Your task to perform on an android device: Add dell alienware to the cart on walmart Image 0: 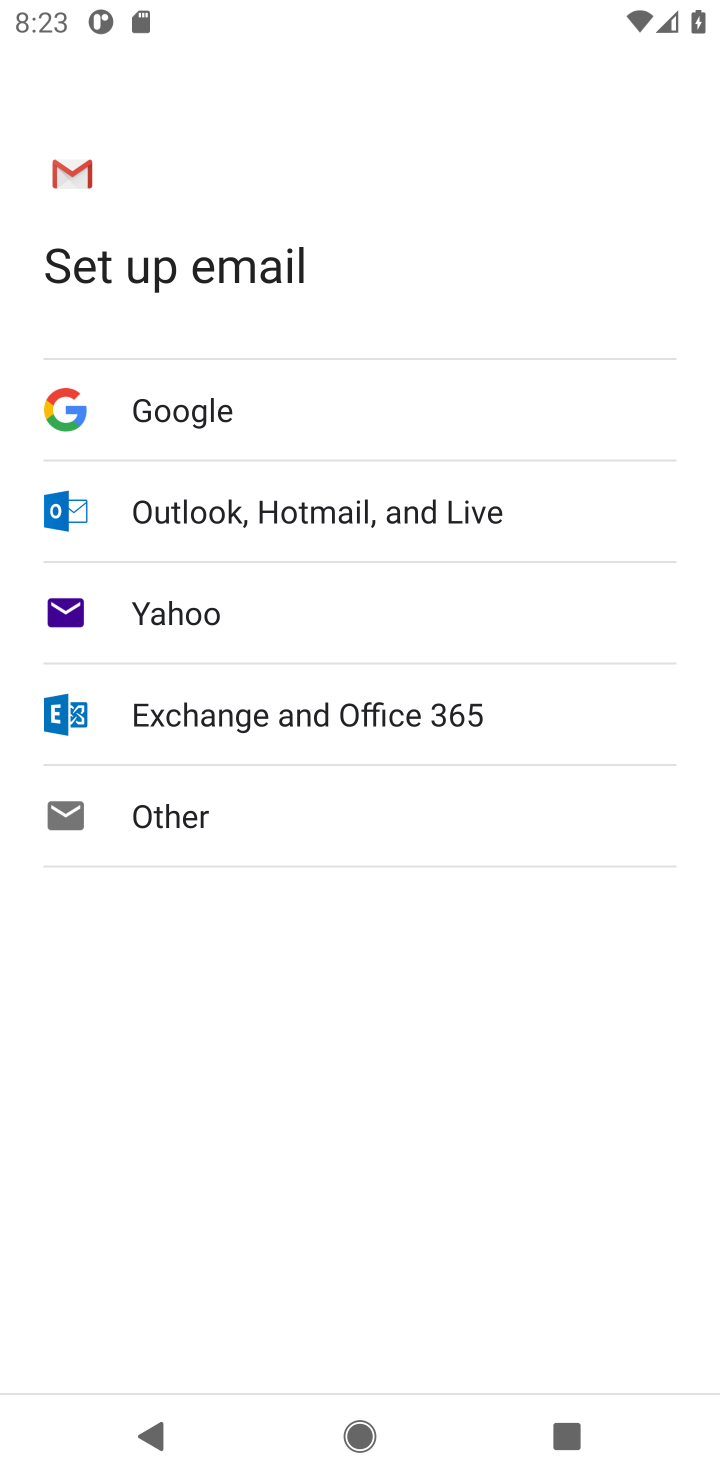
Step 0: press home button
Your task to perform on an android device: Add dell alienware to the cart on walmart Image 1: 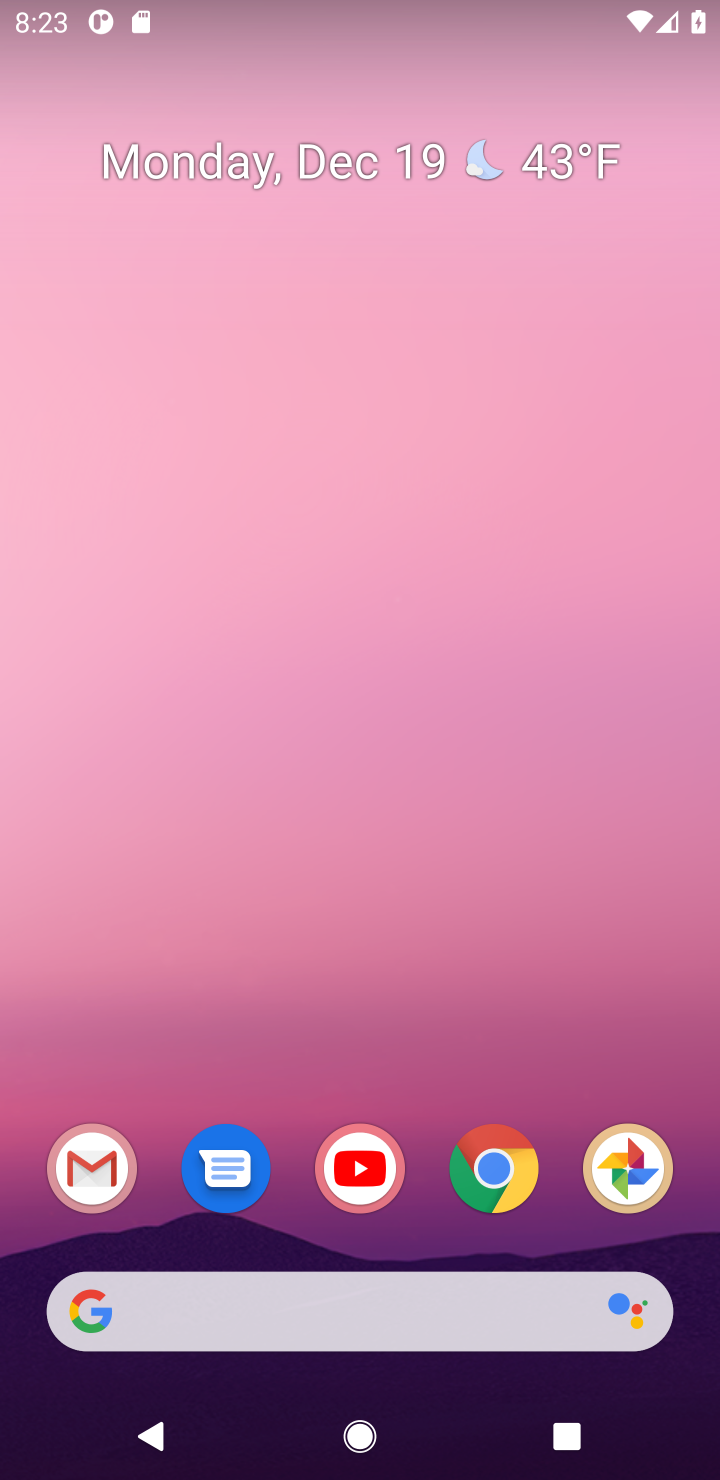
Step 1: click (502, 1174)
Your task to perform on an android device: Add dell alienware to the cart on walmart Image 2: 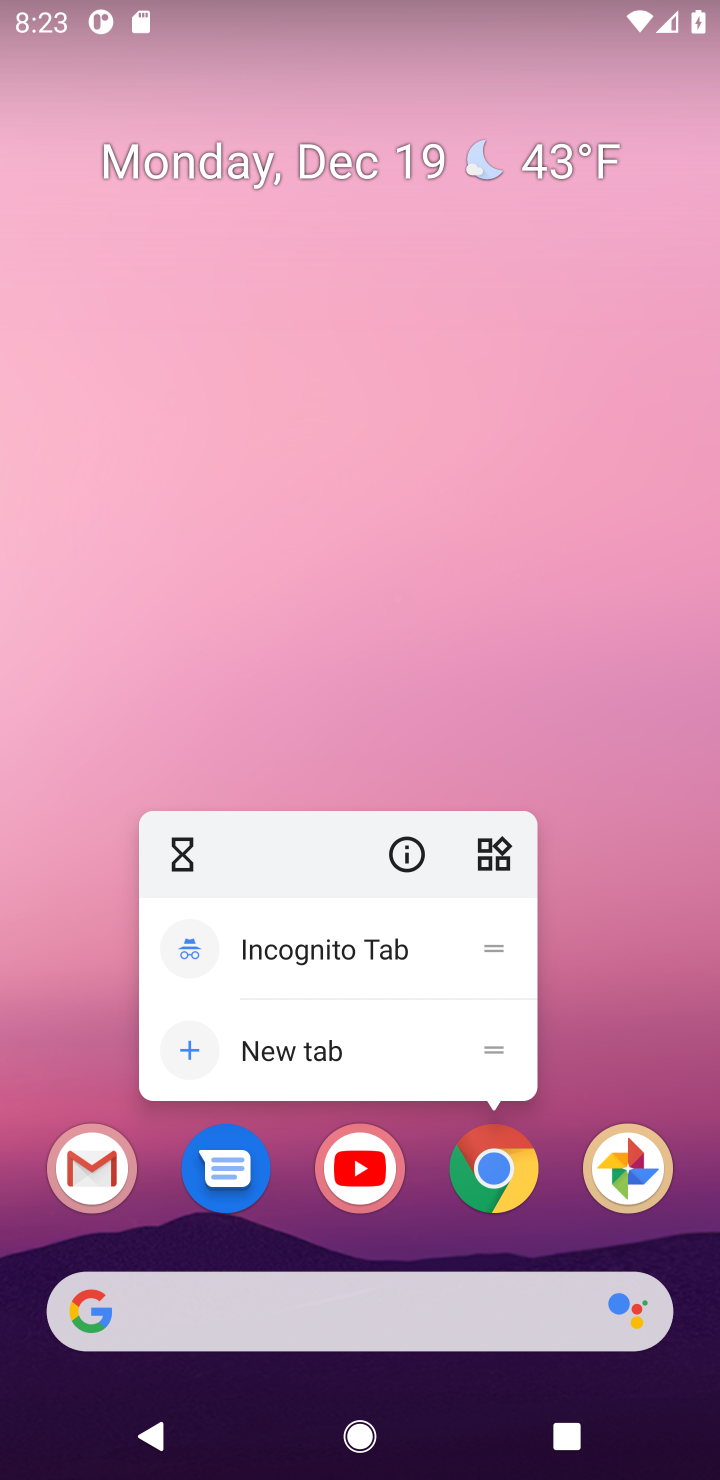
Step 2: click (502, 1174)
Your task to perform on an android device: Add dell alienware to the cart on walmart Image 3: 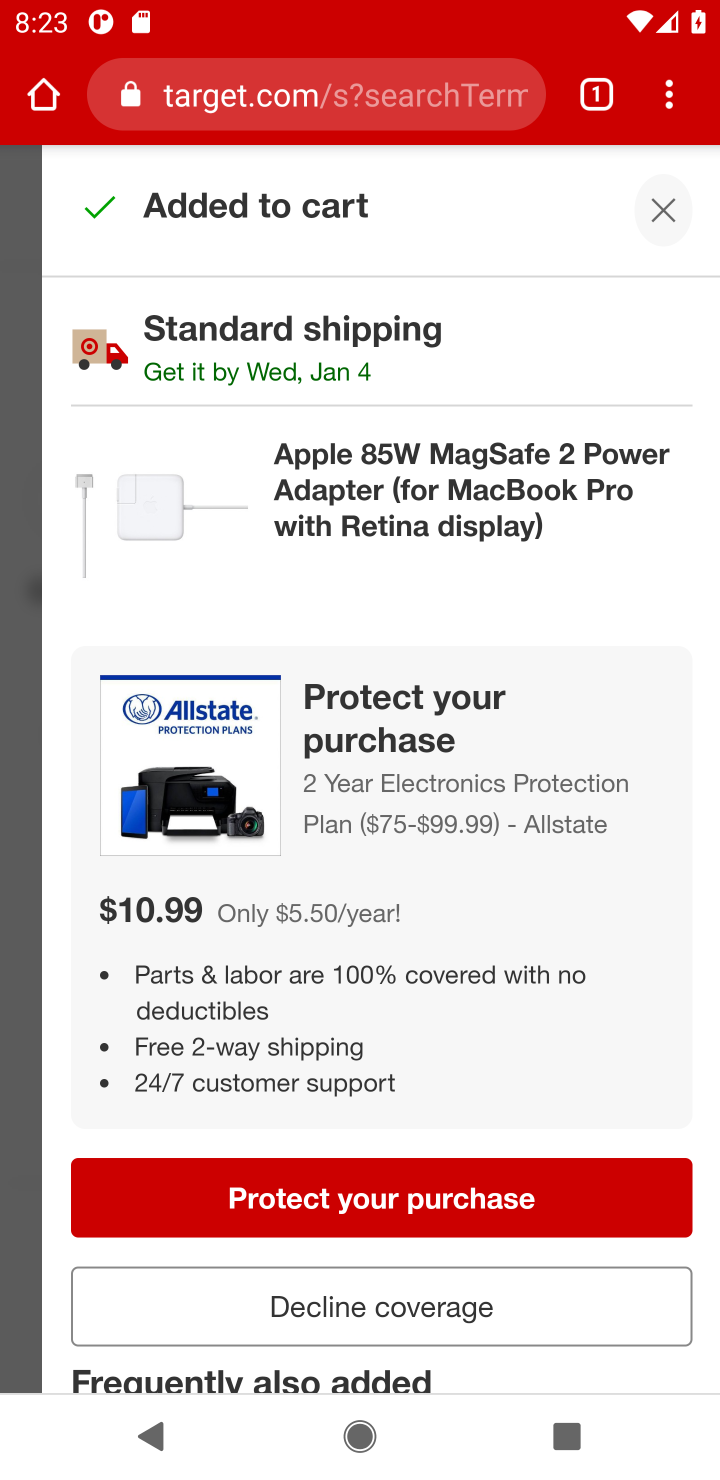
Step 3: click (260, 87)
Your task to perform on an android device: Add dell alienware to the cart on walmart Image 4: 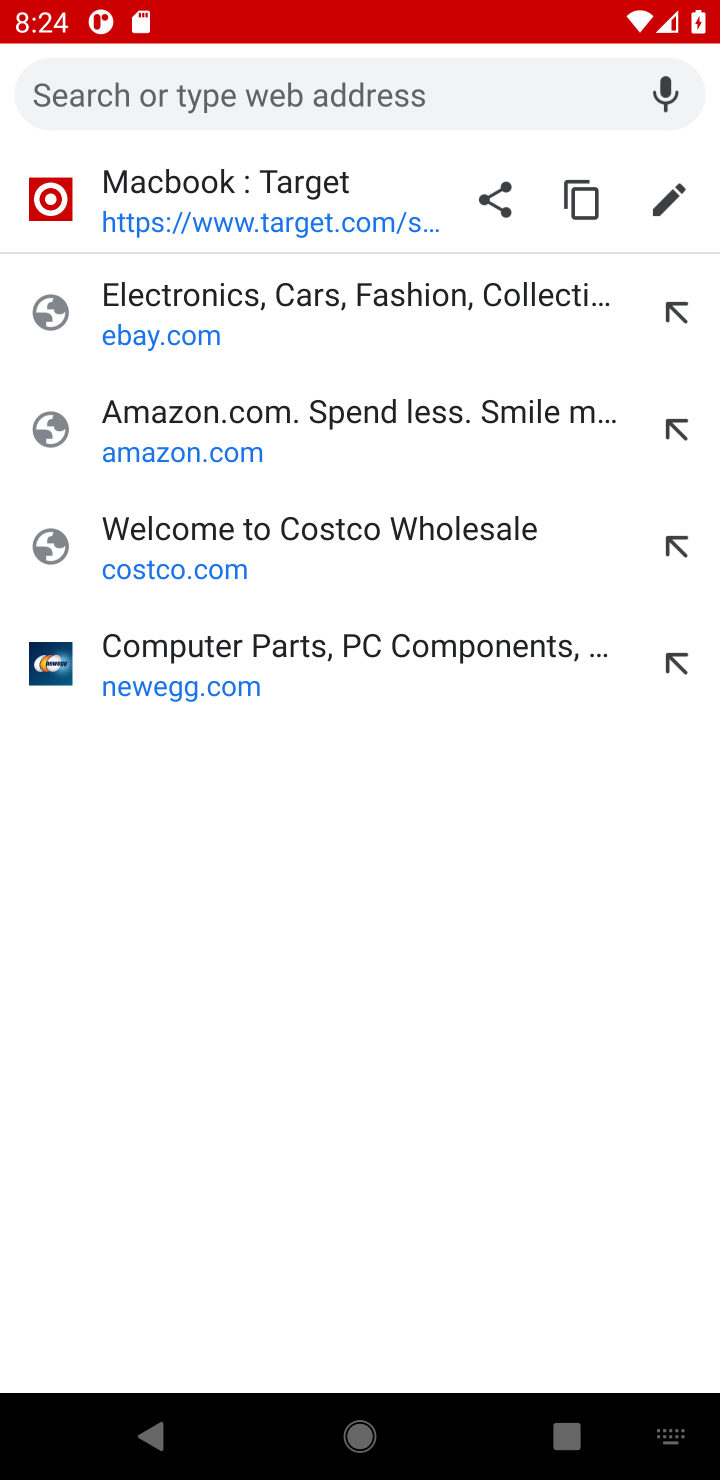
Step 4: type "walmart.com"
Your task to perform on an android device: Add dell alienware to the cart on walmart Image 5: 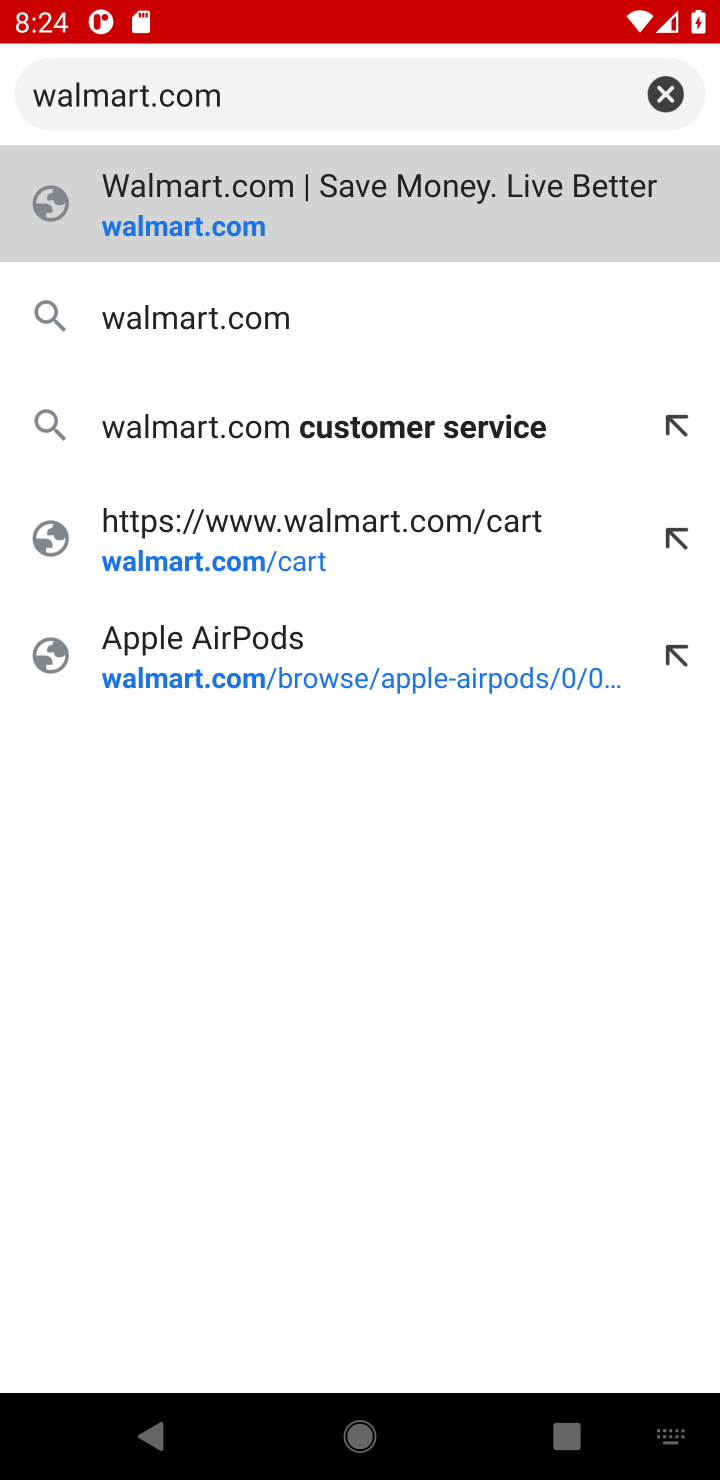
Step 5: click (160, 224)
Your task to perform on an android device: Add dell alienware to the cart on walmart Image 6: 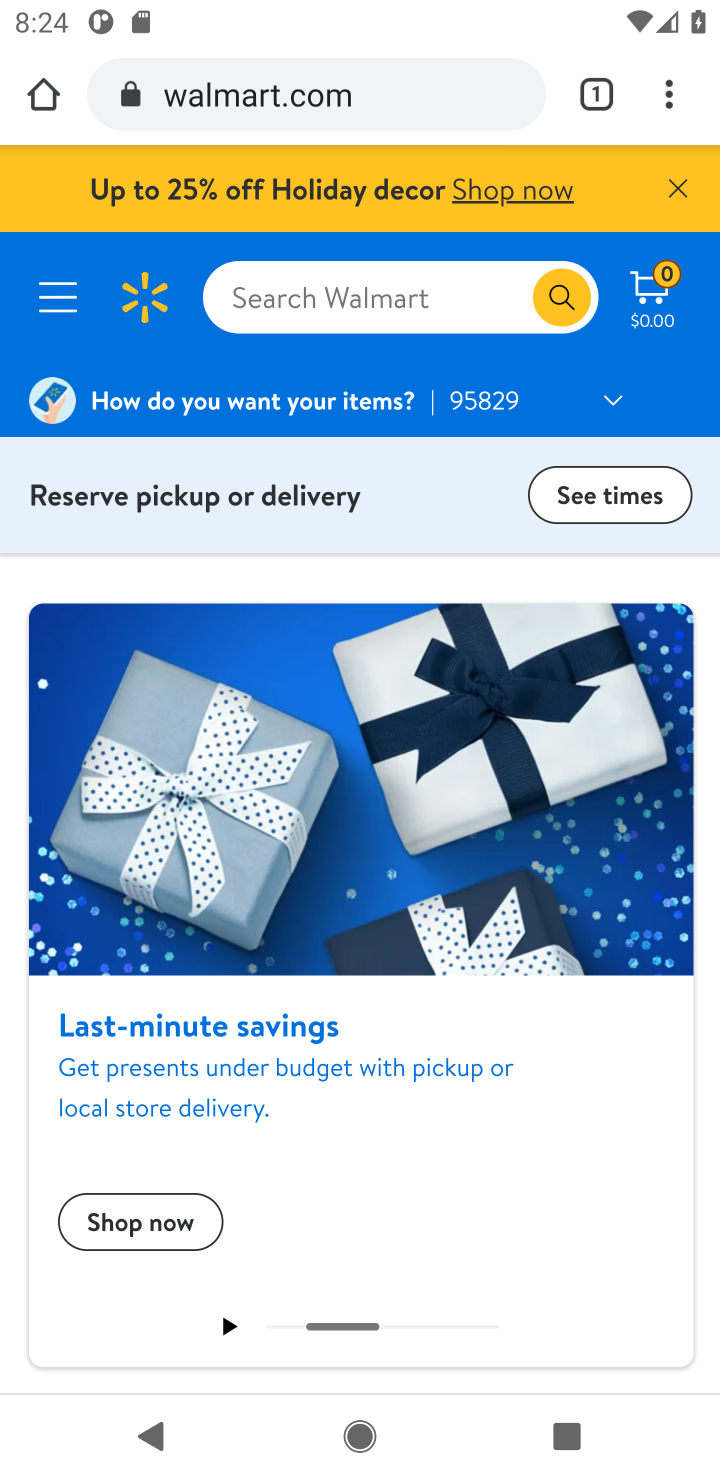
Step 6: click (265, 310)
Your task to perform on an android device: Add dell alienware to the cart on walmart Image 7: 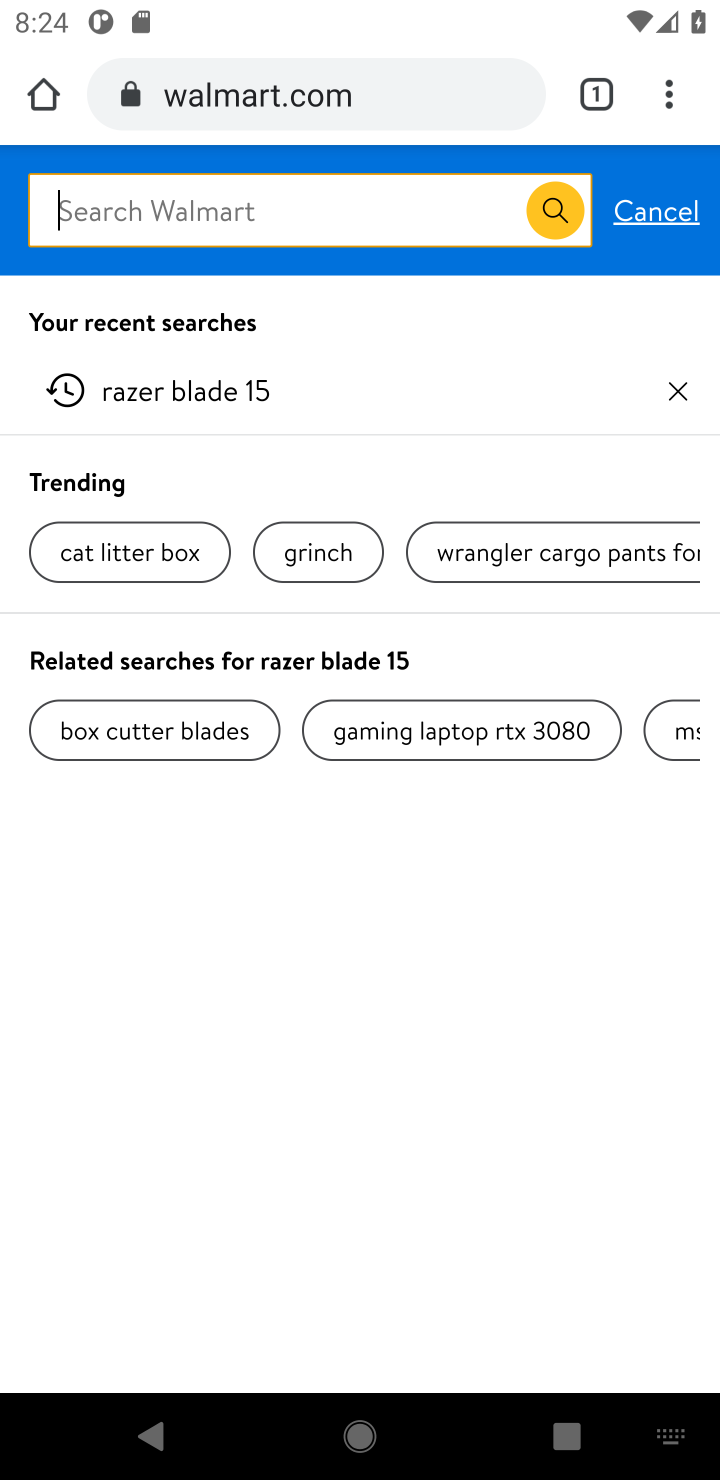
Step 7: type "dell alienware"
Your task to perform on an android device: Add dell alienware to the cart on walmart Image 8: 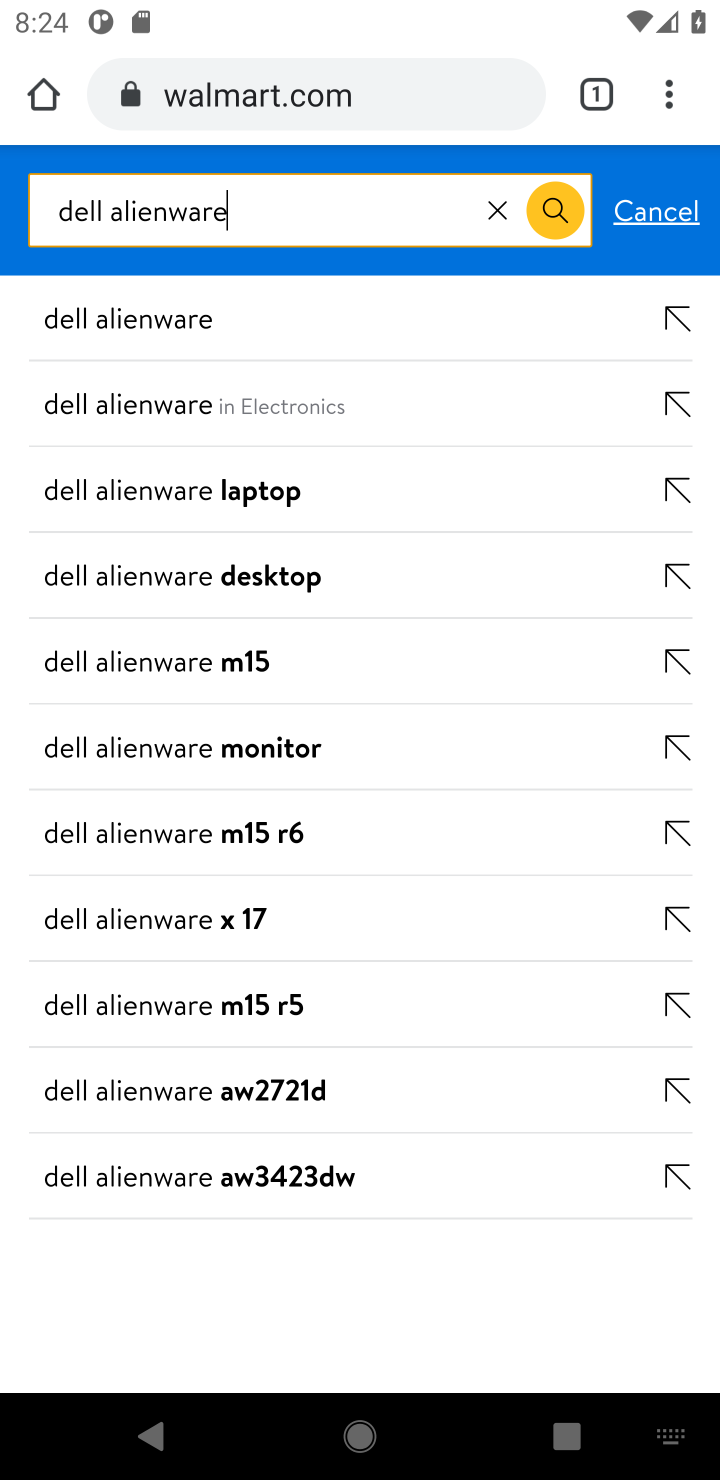
Step 8: click (137, 327)
Your task to perform on an android device: Add dell alienware to the cart on walmart Image 9: 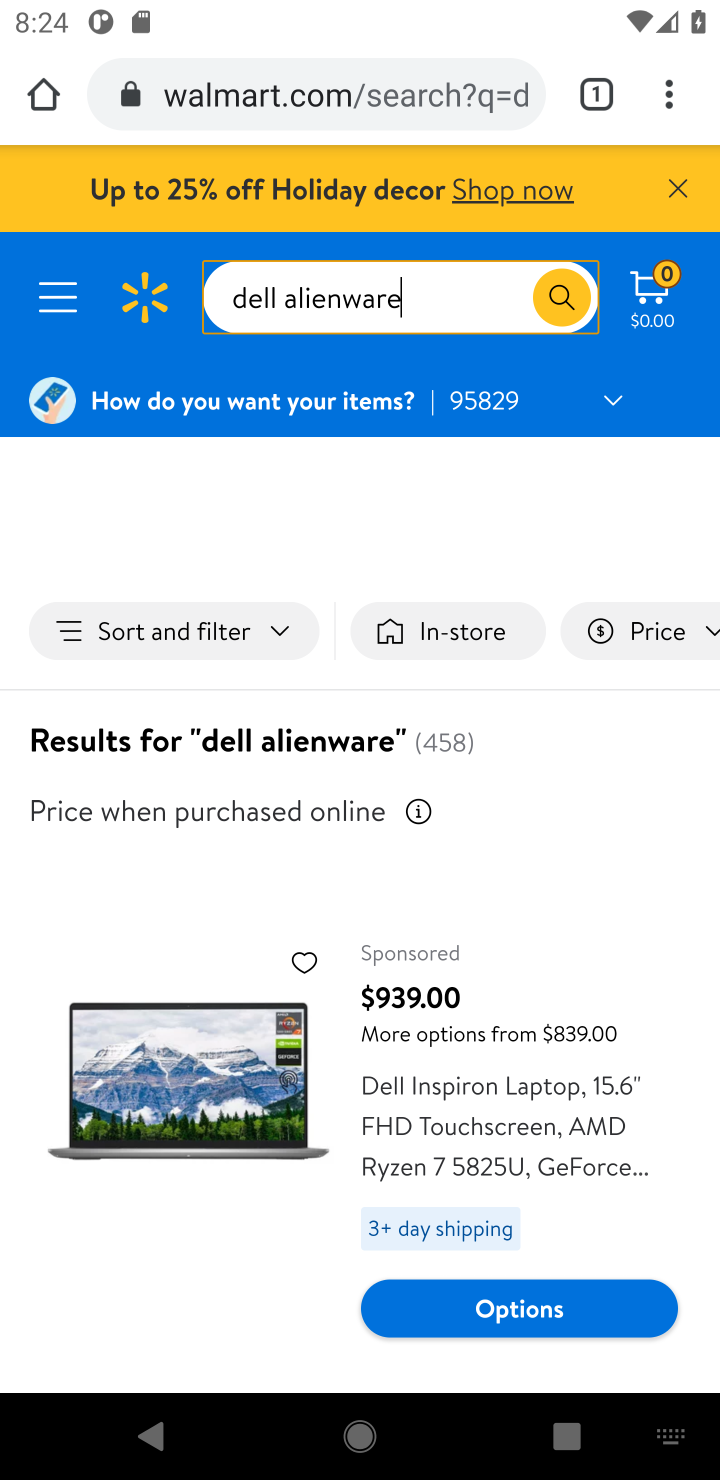
Step 9: drag from (369, 1102) to (371, 634)
Your task to perform on an android device: Add dell alienware to the cart on walmart Image 10: 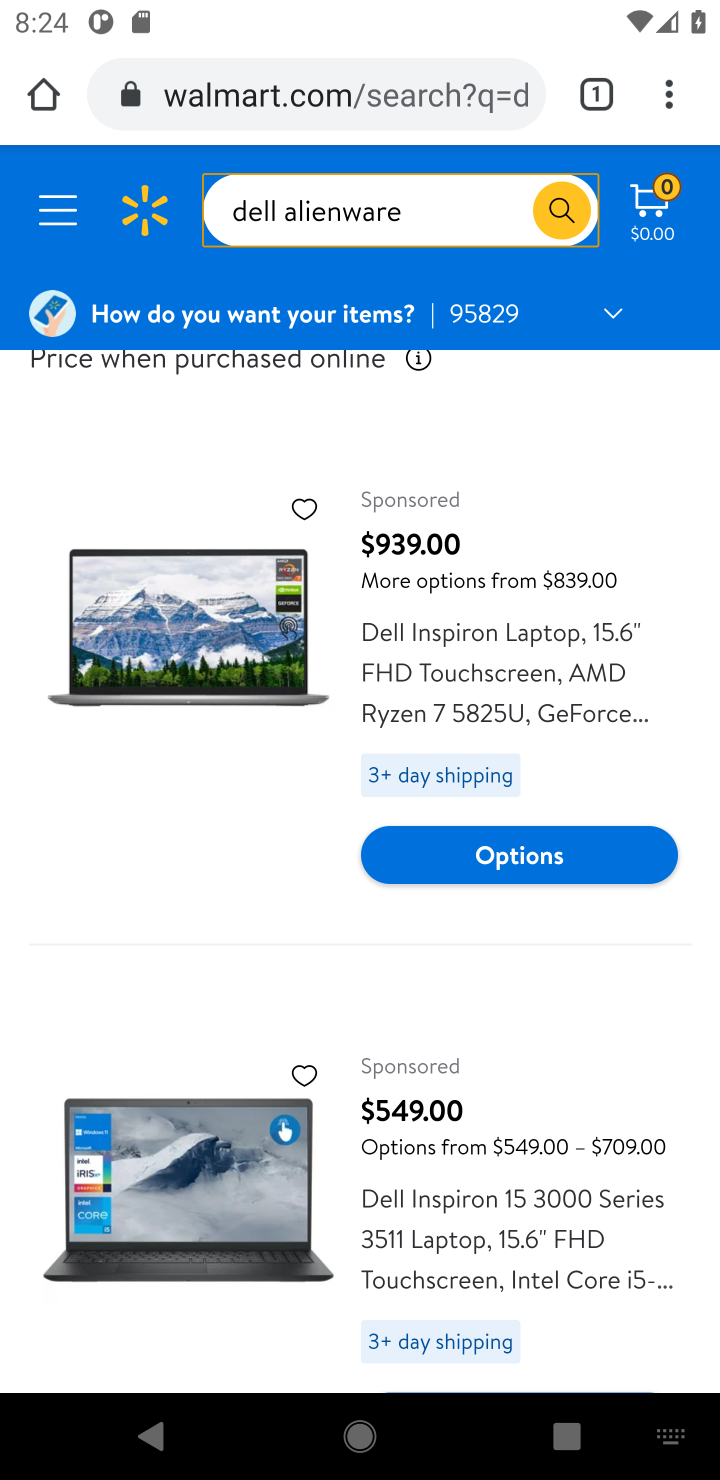
Step 10: drag from (412, 1057) to (391, 574)
Your task to perform on an android device: Add dell alienware to the cart on walmart Image 11: 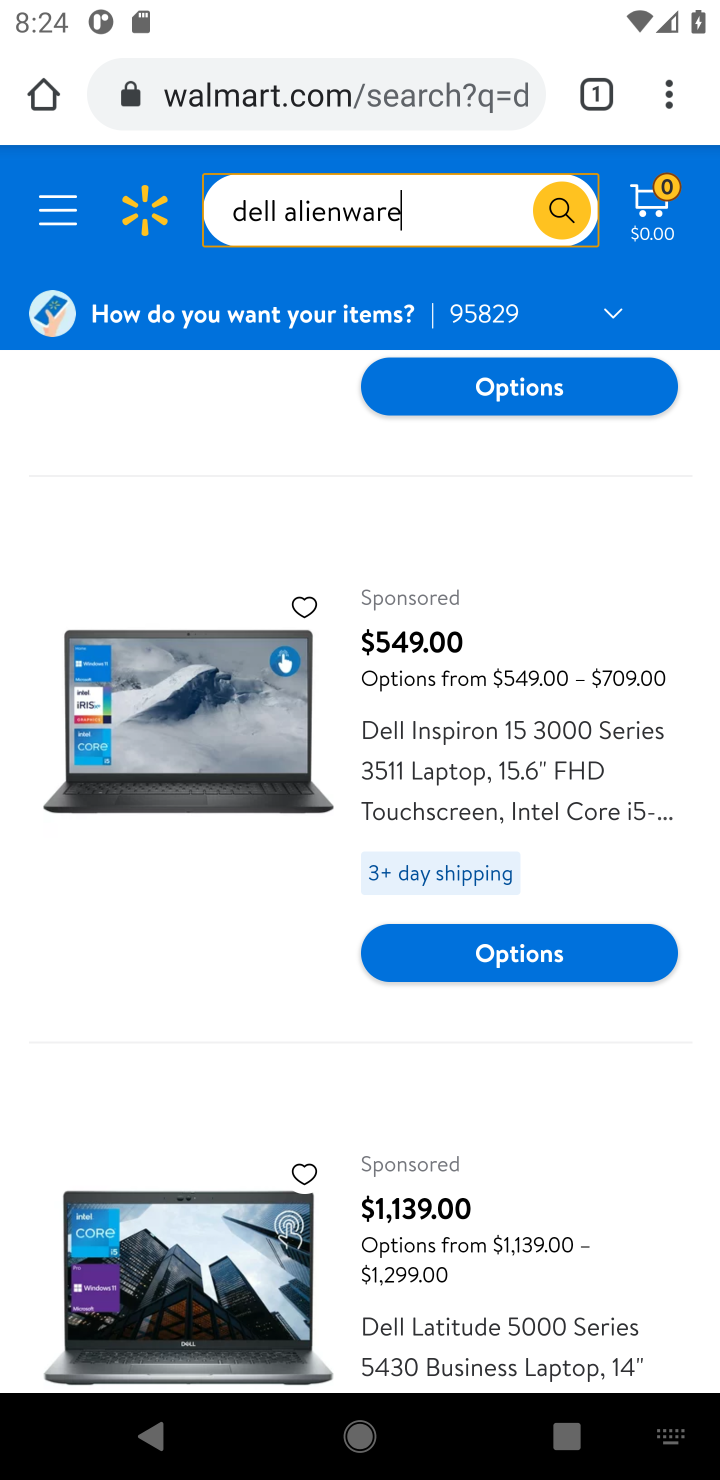
Step 11: drag from (383, 784) to (383, 215)
Your task to perform on an android device: Add dell alienware to the cart on walmart Image 12: 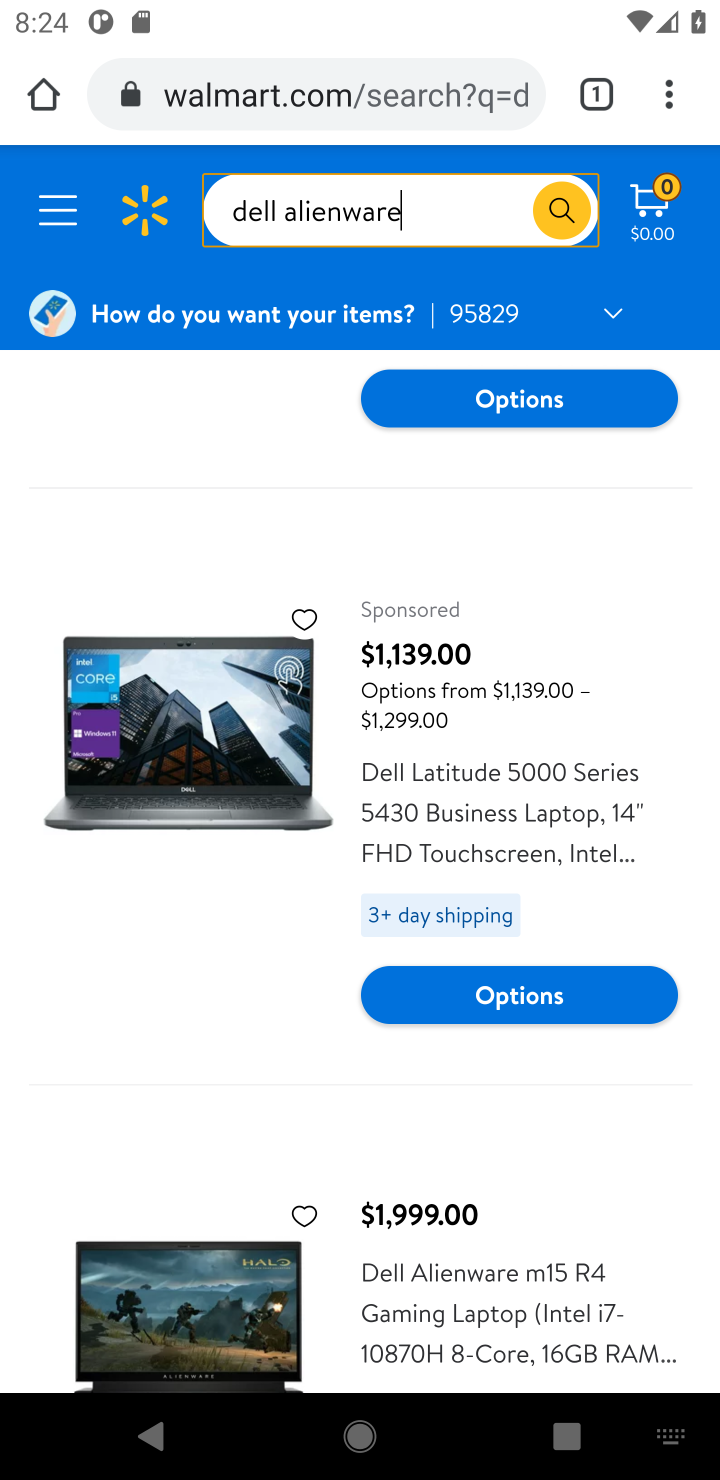
Step 12: drag from (406, 871) to (398, 323)
Your task to perform on an android device: Add dell alienware to the cart on walmart Image 13: 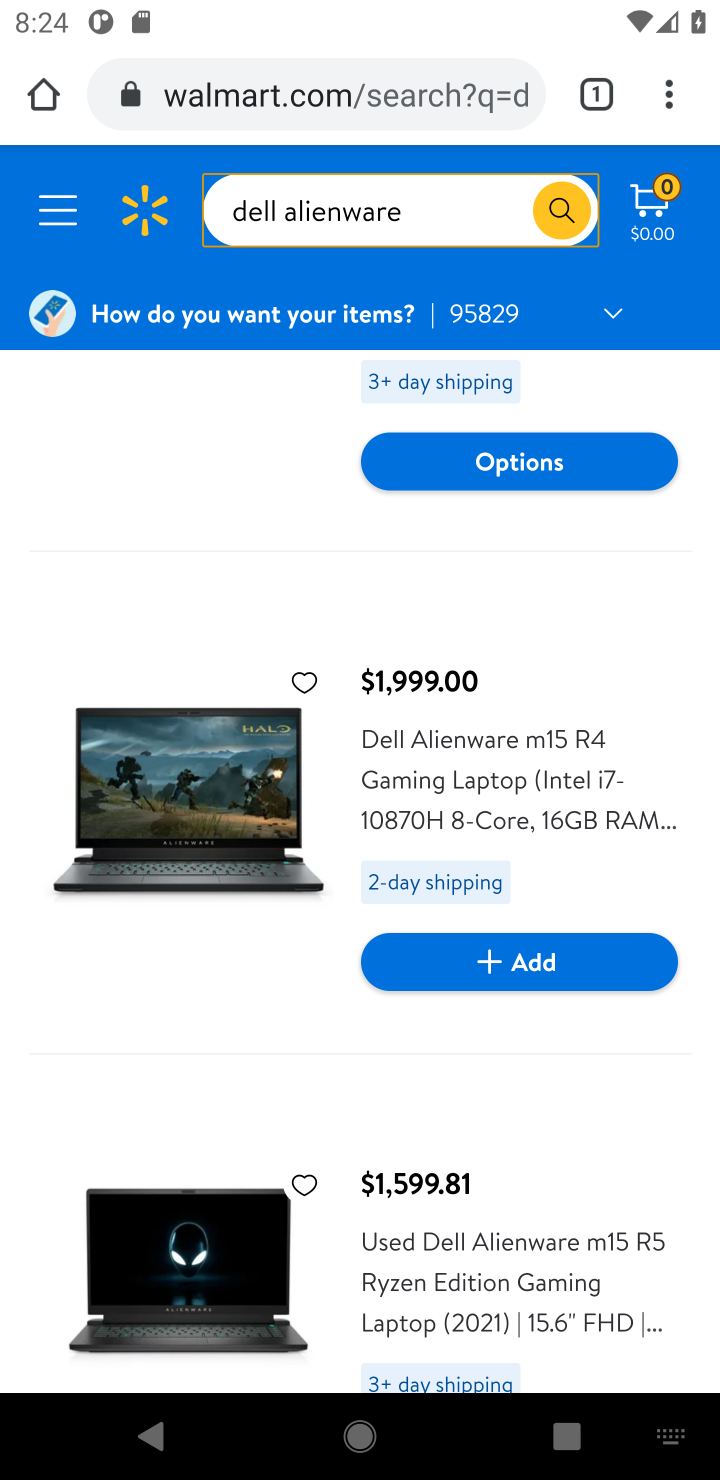
Step 13: click (472, 972)
Your task to perform on an android device: Add dell alienware to the cart on walmart Image 14: 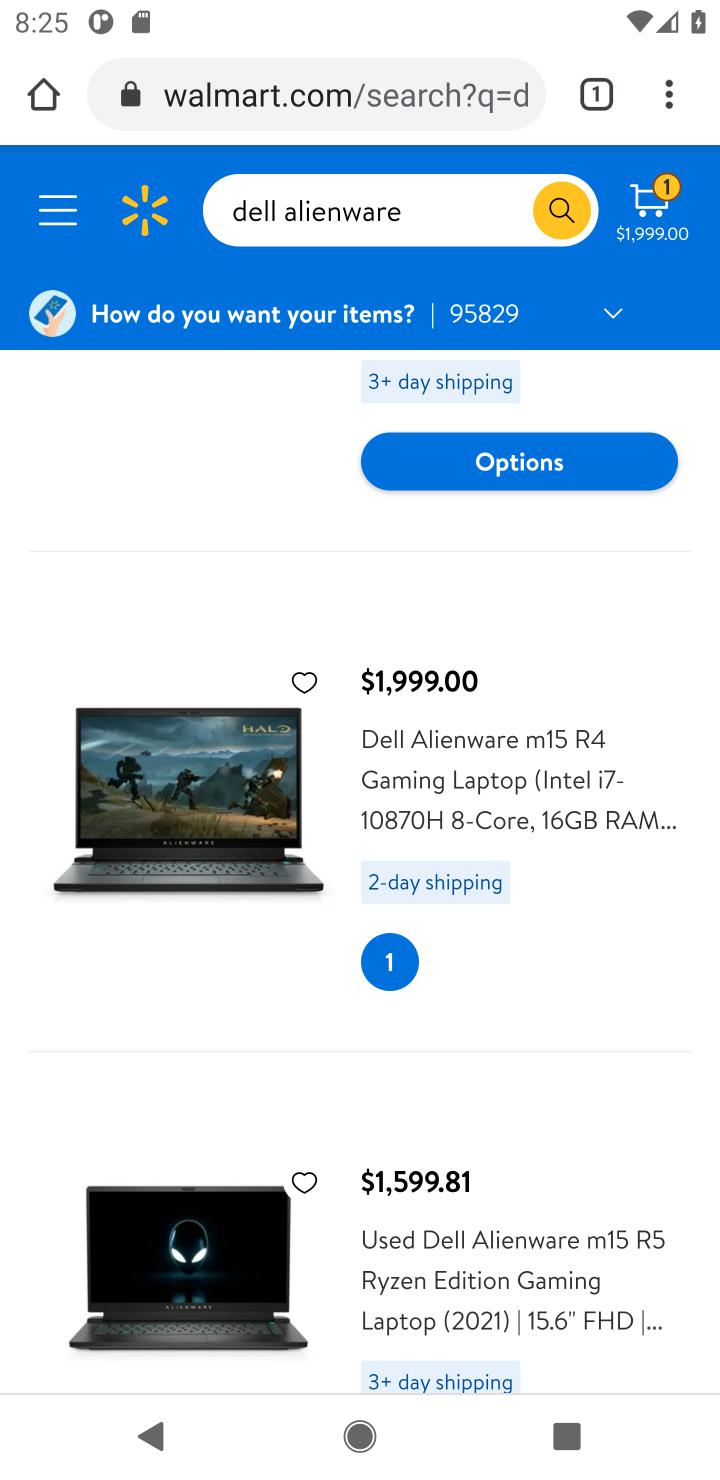
Step 14: task complete